Your task to perform on an android device: delete location history Image 0: 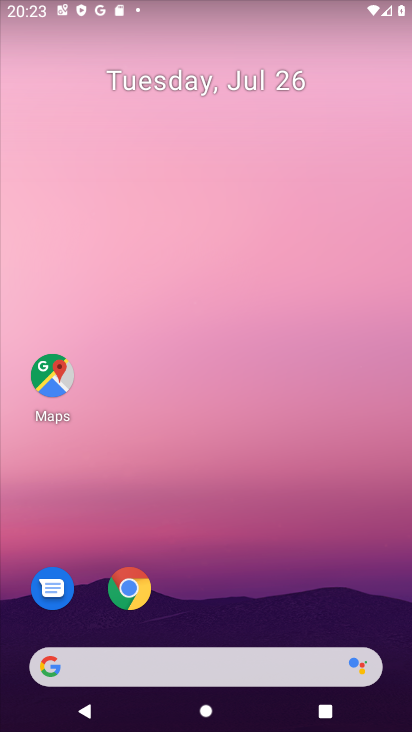
Step 0: press home button
Your task to perform on an android device: delete location history Image 1: 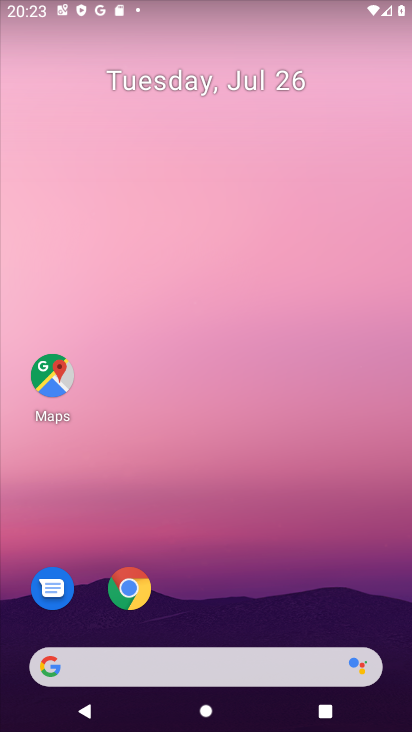
Step 1: drag from (210, 595) to (251, 109)
Your task to perform on an android device: delete location history Image 2: 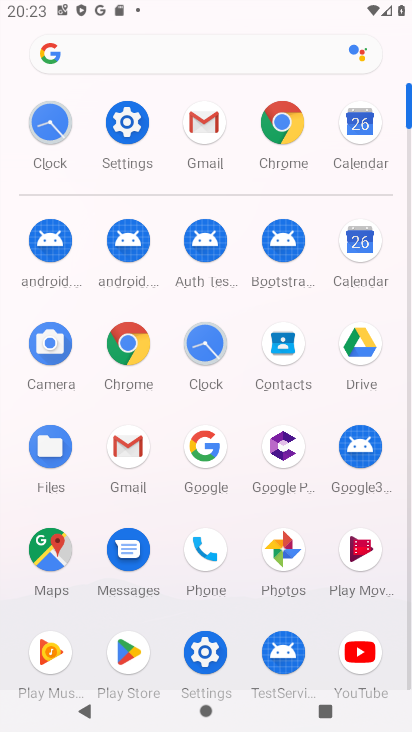
Step 2: click (129, 126)
Your task to perform on an android device: delete location history Image 3: 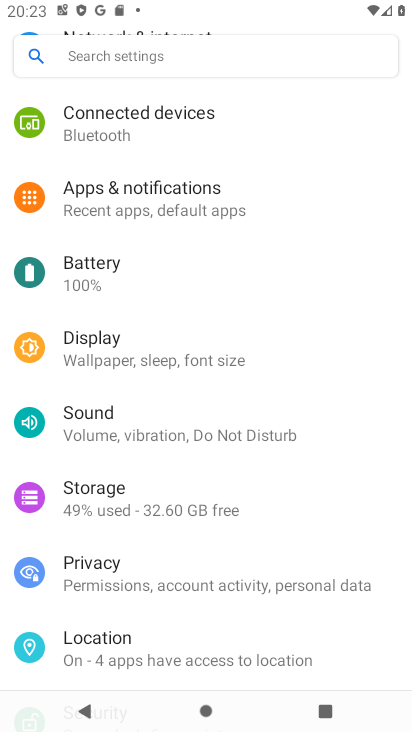
Step 3: click (118, 624)
Your task to perform on an android device: delete location history Image 4: 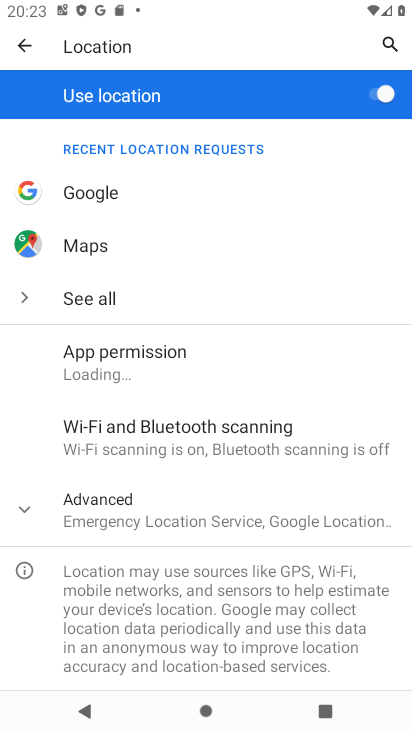
Step 4: click (25, 502)
Your task to perform on an android device: delete location history Image 5: 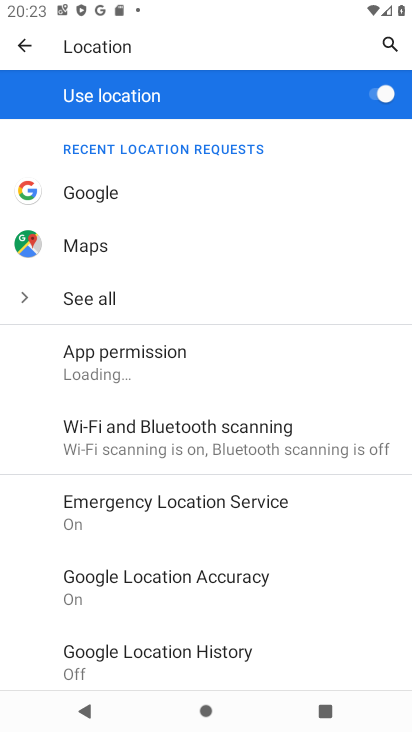
Step 5: click (184, 666)
Your task to perform on an android device: delete location history Image 6: 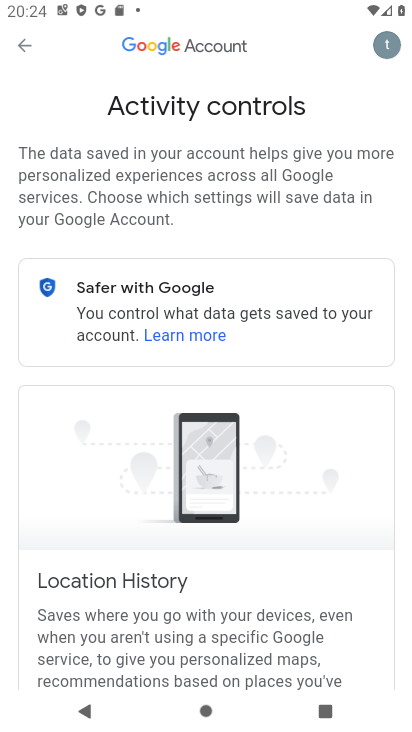
Step 6: drag from (375, 668) to (370, 323)
Your task to perform on an android device: delete location history Image 7: 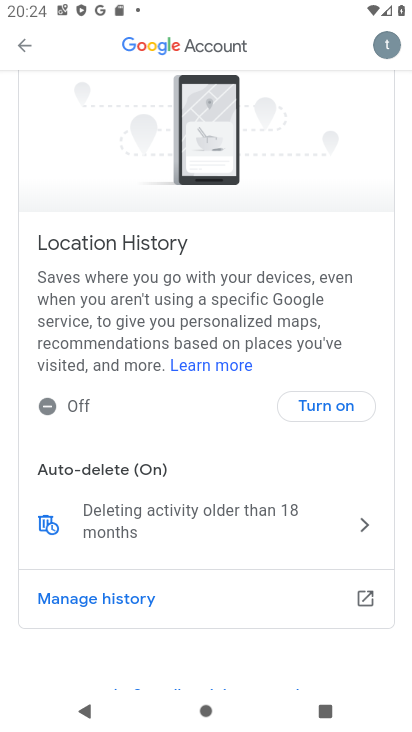
Step 7: click (36, 522)
Your task to perform on an android device: delete location history Image 8: 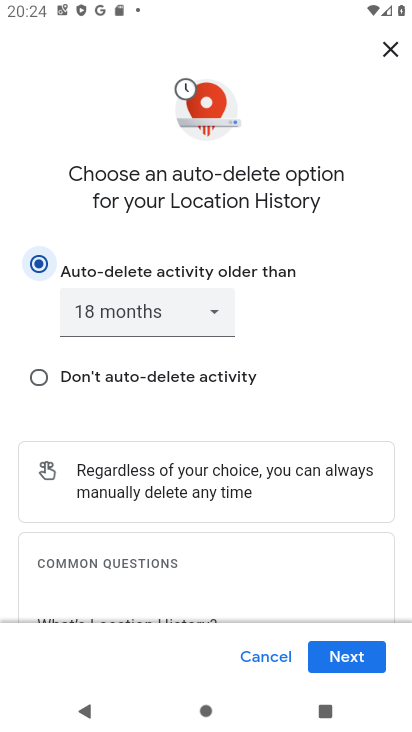
Step 8: click (350, 640)
Your task to perform on an android device: delete location history Image 9: 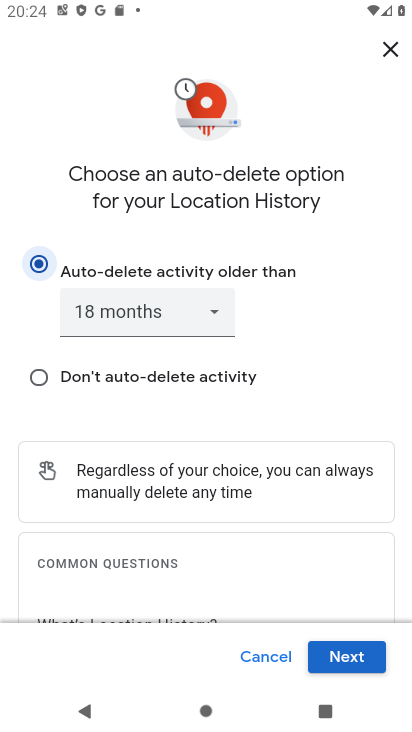
Step 9: click (343, 661)
Your task to perform on an android device: delete location history Image 10: 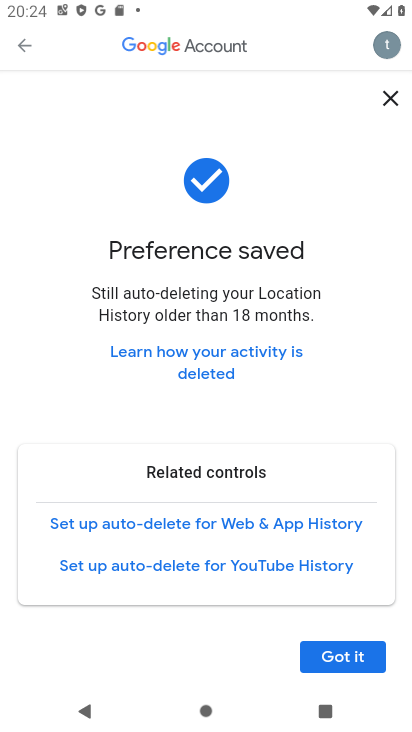
Step 10: click (343, 661)
Your task to perform on an android device: delete location history Image 11: 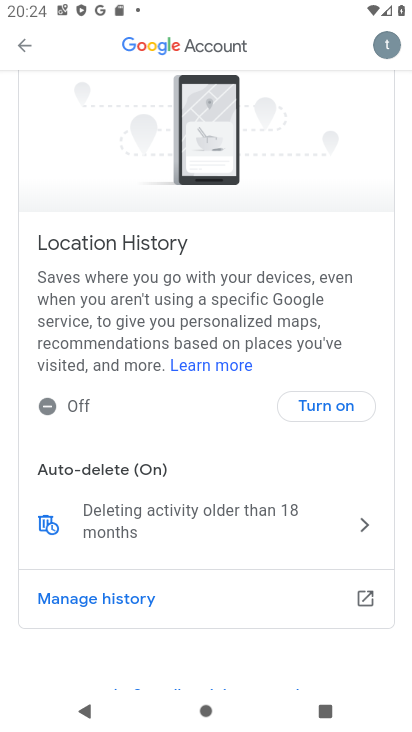
Step 11: task complete